Your task to perform on an android device: Open my contact list Image 0: 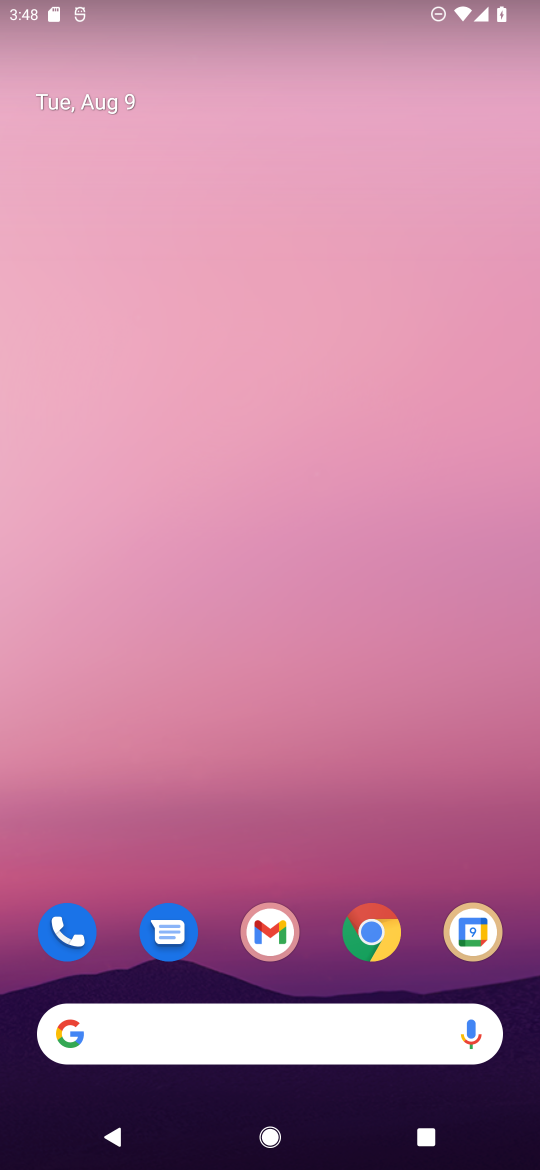
Step 0: click (82, 924)
Your task to perform on an android device: Open my contact list Image 1: 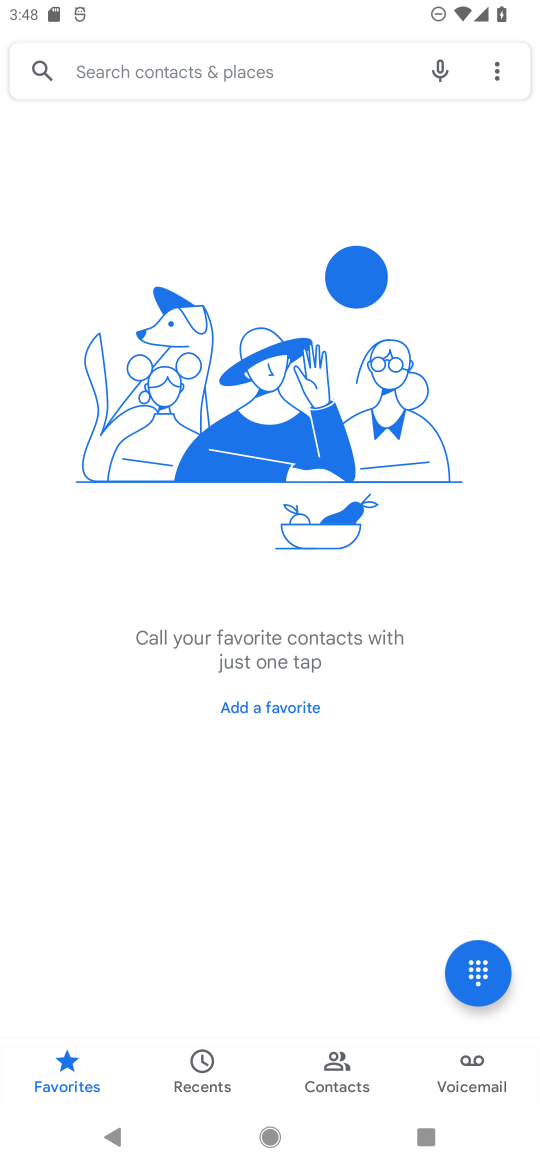
Step 1: click (338, 1074)
Your task to perform on an android device: Open my contact list Image 2: 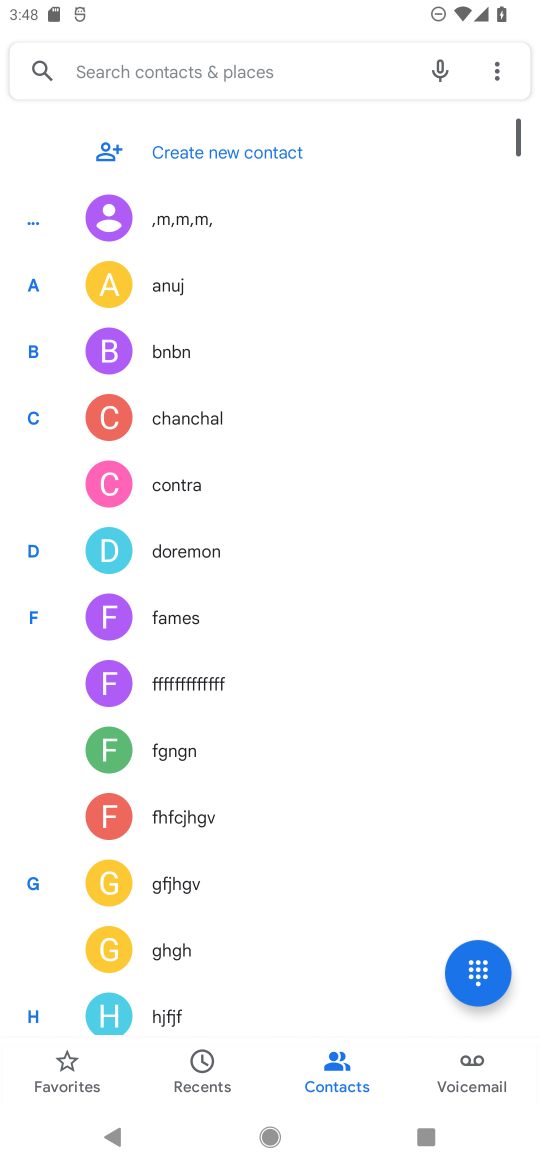
Step 2: click (228, 146)
Your task to perform on an android device: Open my contact list Image 3: 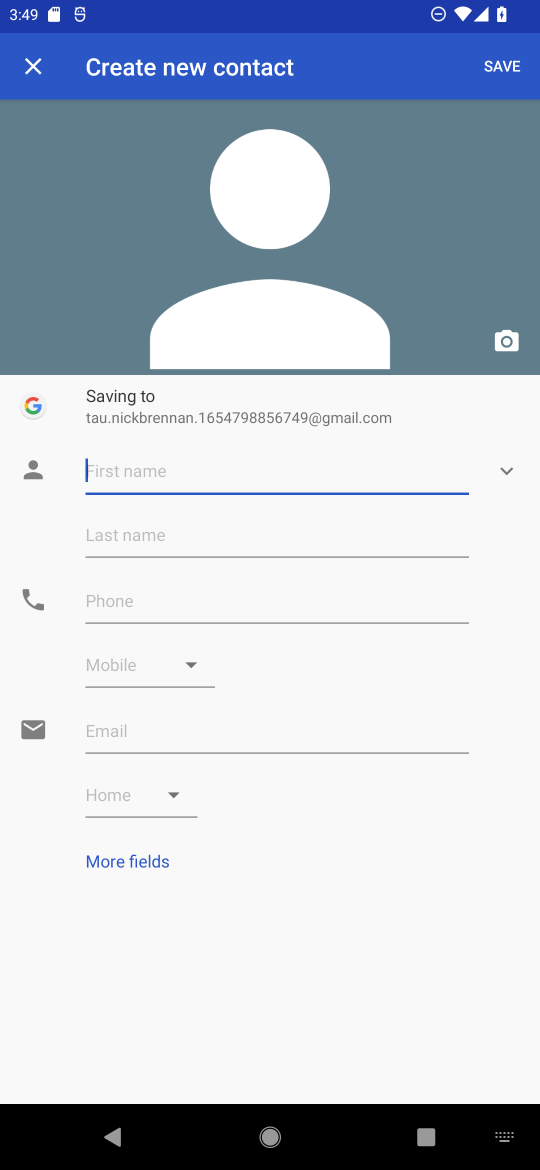
Step 3: type "rgrehb"
Your task to perform on an android device: Open my contact list Image 4: 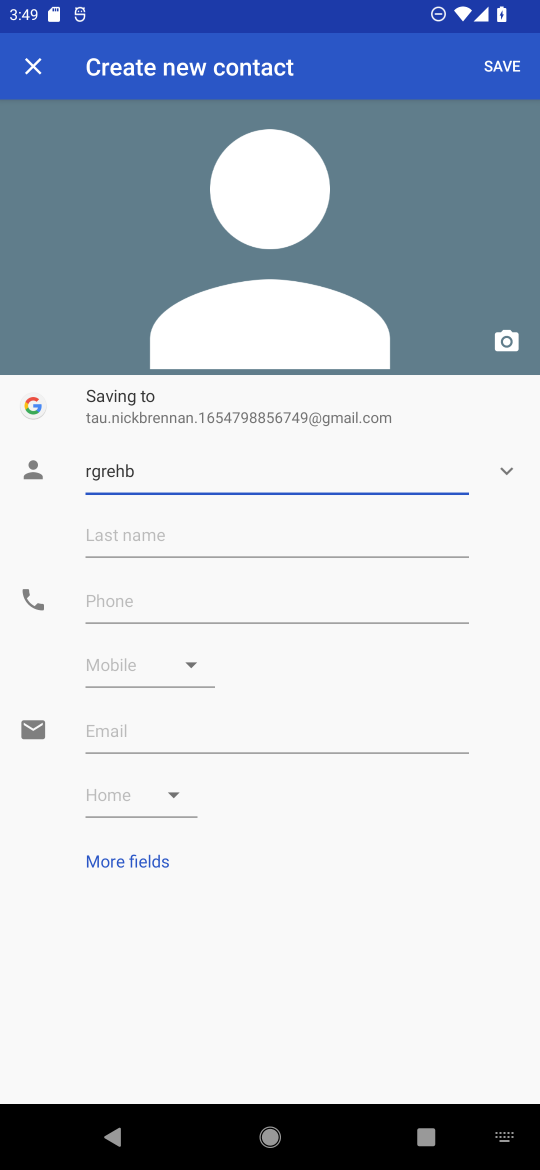
Step 4: click (505, 71)
Your task to perform on an android device: Open my contact list Image 5: 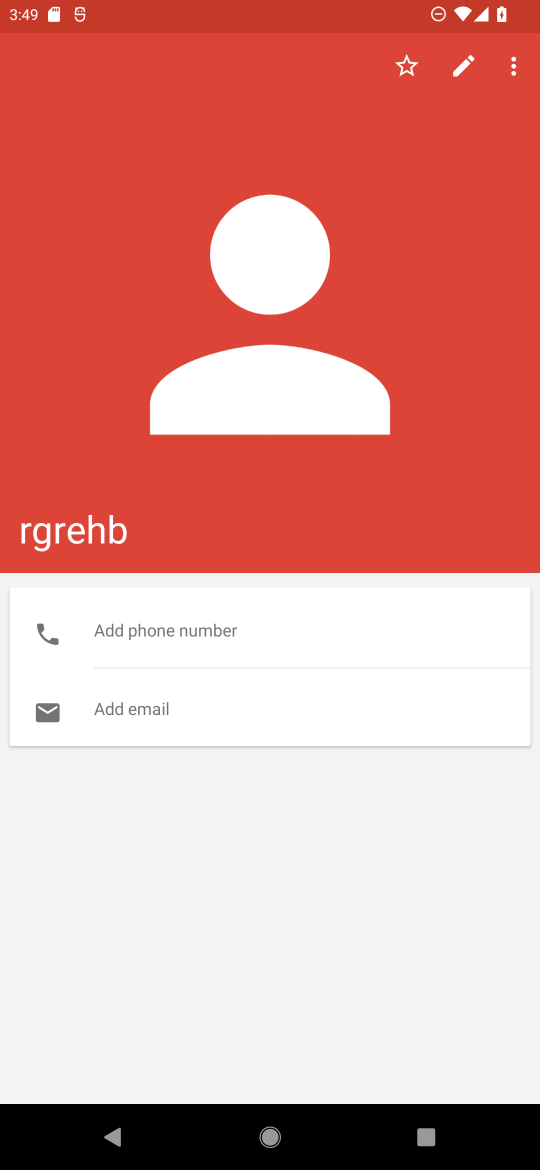
Step 5: task complete